Your task to perform on an android device: change text size in settings app Image 0: 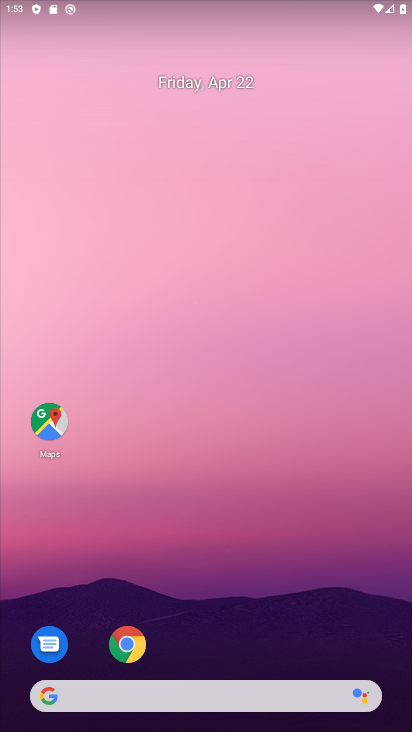
Step 0: drag from (207, 529) to (184, 191)
Your task to perform on an android device: change text size in settings app Image 1: 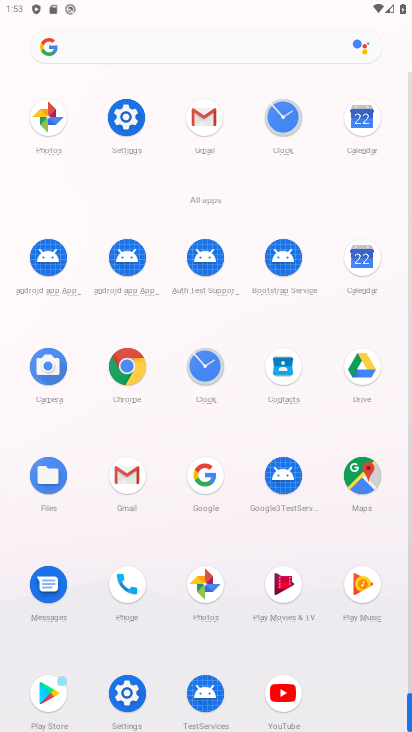
Step 1: click (124, 699)
Your task to perform on an android device: change text size in settings app Image 2: 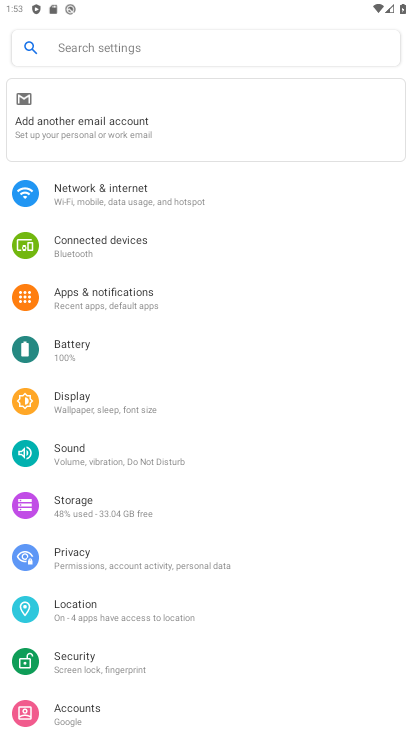
Step 2: click (72, 404)
Your task to perform on an android device: change text size in settings app Image 3: 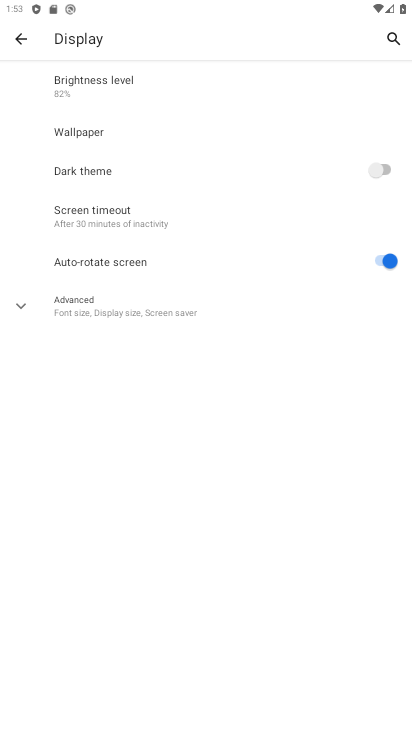
Step 3: click (111, 305)
Your task to perform on an android device: change text size in settings app Image 4: 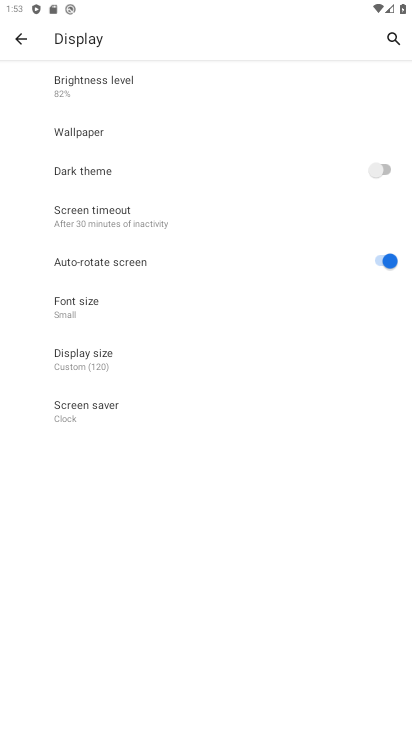
Step 4: click (82, 361)
Your task to perform on an android device: change text size in settings app Image 5: 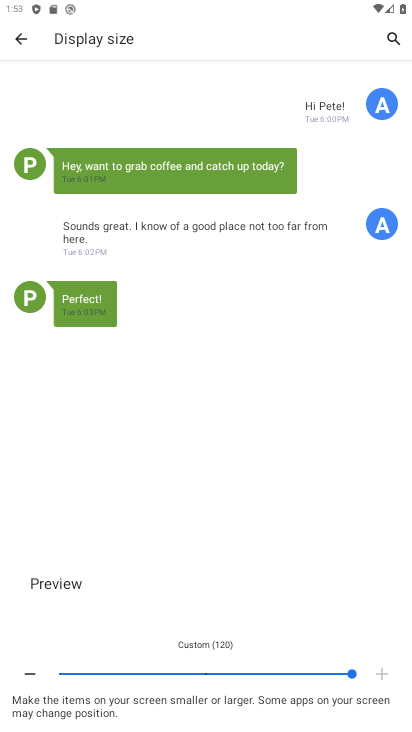
Step 5: press back button
Your task to perform on an android device: change text size in settings app Image 6: 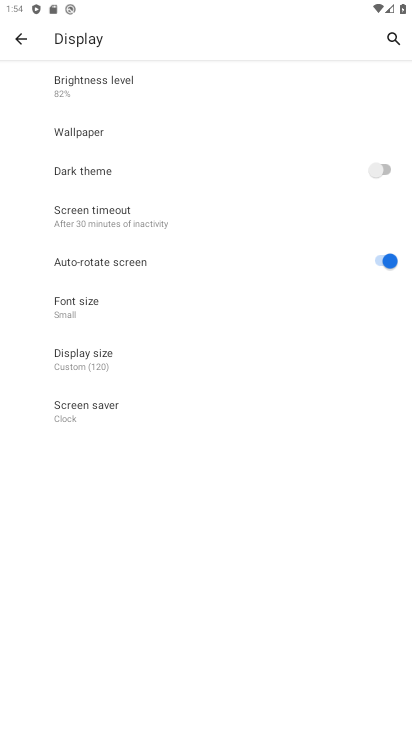
Step 6: click (70, 304)
Your task to perform on an android device: change text size in settings app Image 7: 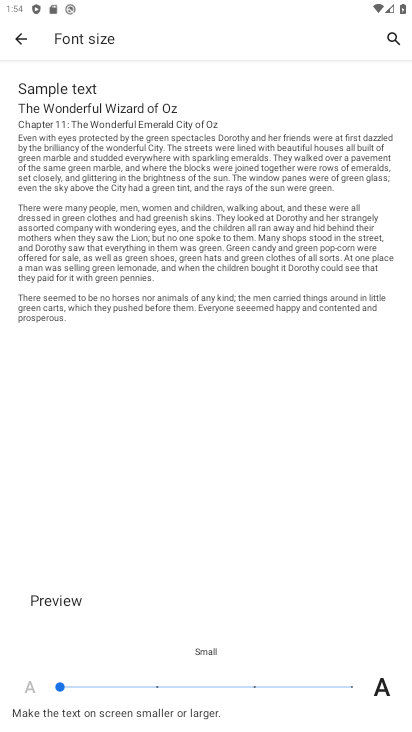
Step 7: click (162, 692)
Your task to perform on an android device: change text size in settings app Image 8: 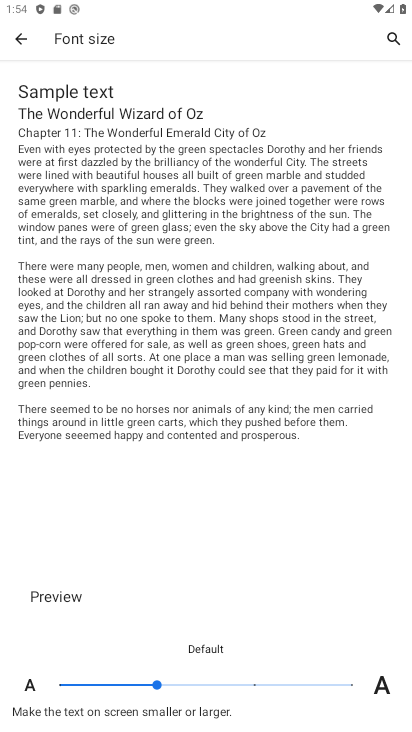
Step 8: click (252, 687)
Your task to perform on an android device: change text size in settings app Image 9: 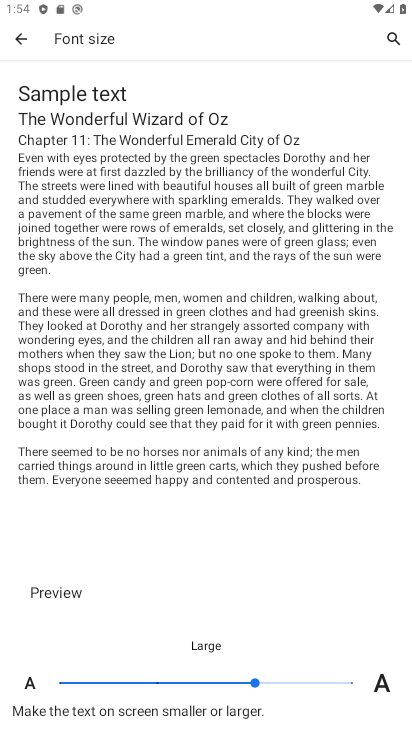
Step 9: task complete